Your task to perform on an android device: Show me the alarms in the clock app Image 0: 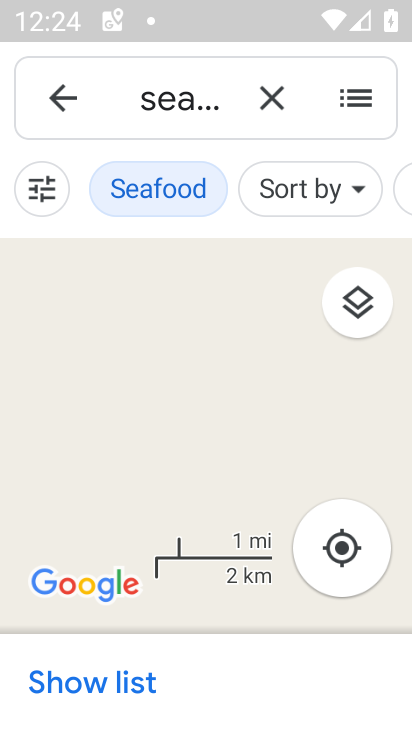
Step 0: press home button
Your task to perform on an android device: Show me the alarms in the clock app Image 1: 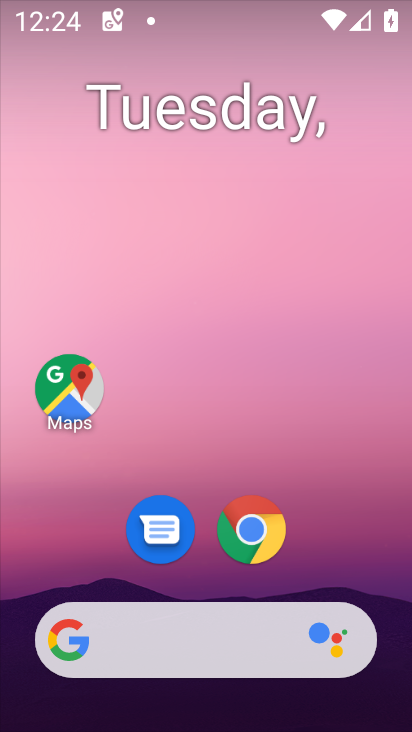
Step 1: drag from (220, 684) to (384, 8)
Your task to perform on an android device: Show me the alarms in the clock app Image 2: 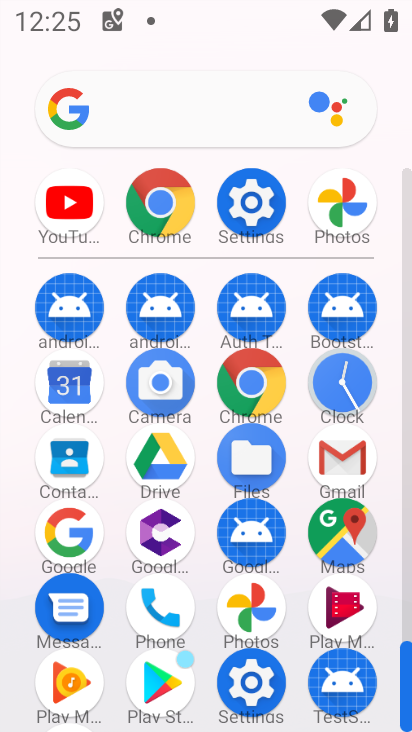
Step 2: click (340, 397)
Your task to perform on an android device: Show me the alarms in the clock app Image 3: 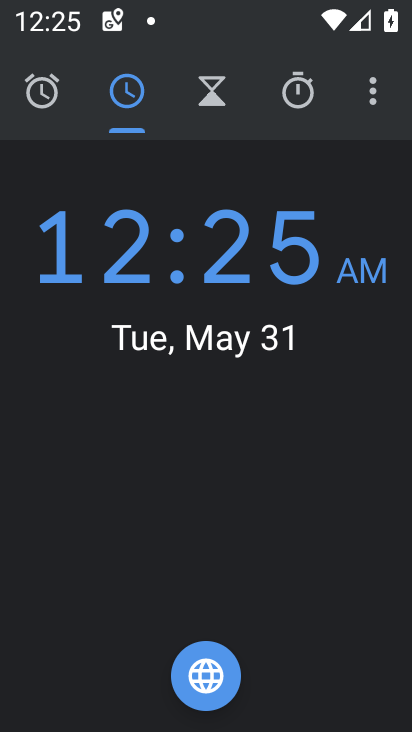
Step 3: click (63, 99)
Your task to perform on an android device: Show me the alarms in the clock app Image 4: 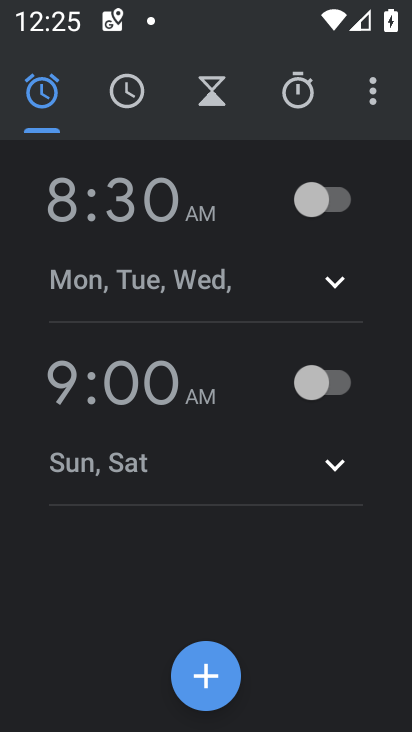
Step 4: task complete